Your task to perform on an android device: Add "usb-a to usb-b" to the cart on amazon.com, then select checkout. Image 0: 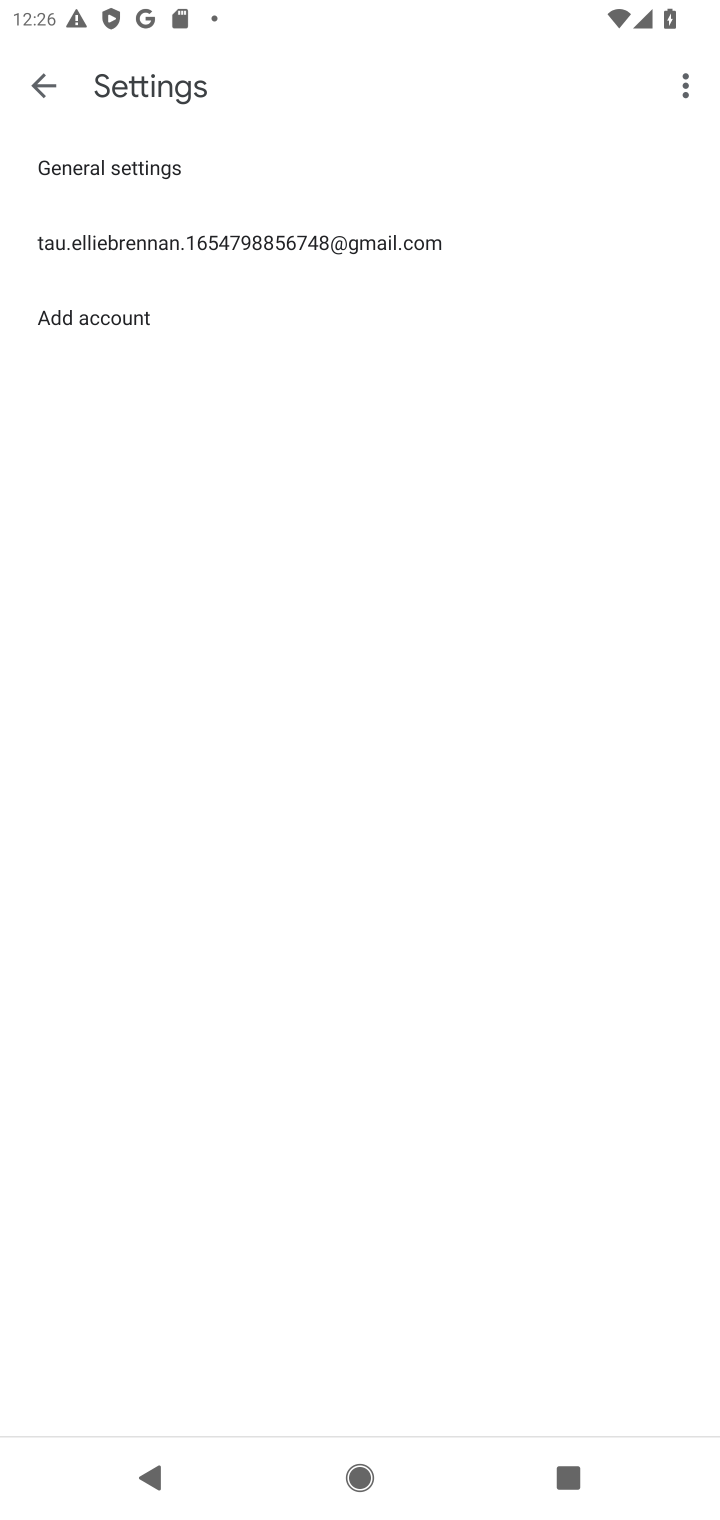
Step 0: task complete